Your task to perform on an android device: turn off notifications in google photos Image 0: 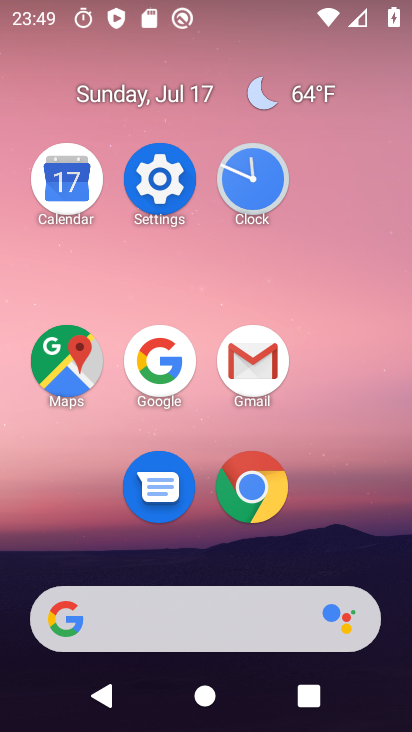
Step 0: drag from (316, 485) to (350, 70)
Your task to perform on an android device: turn off notifications in google photos Image 1: 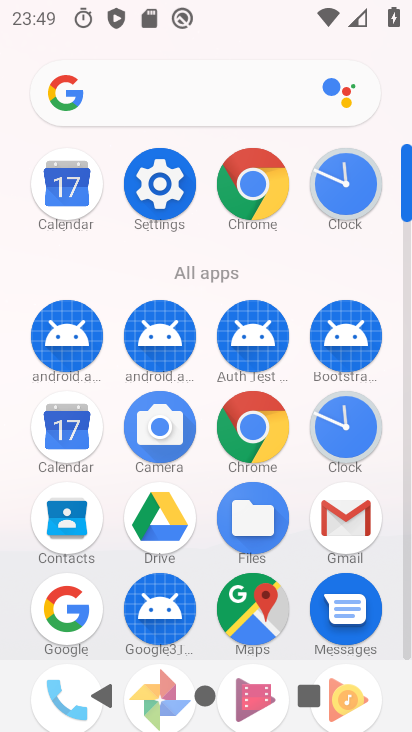
Step 1: drag from (202, 645) to (249, 257)
Your task to perform on an android device: turn off notifications in google photos Image 2: 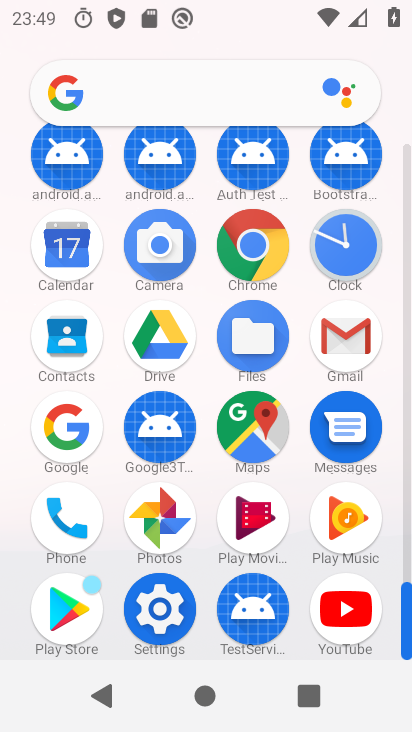
Step 2: drag from (162, 525) to (313, 223)
Your task to perform on an android device: turn off notifications in google photos Image 3: 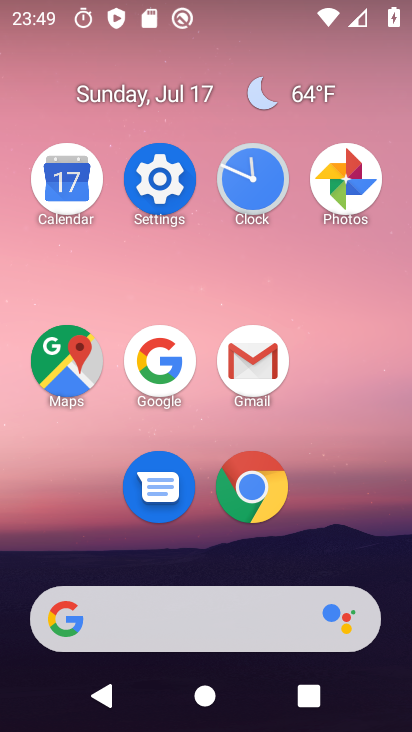
Step 3: click (325, 171)
Your task to perform on an android device: turn off notifications in google photos Image 4: 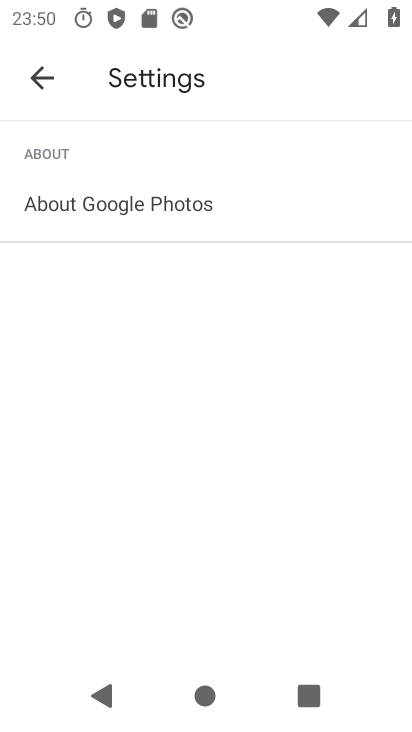
Step 4: click (59, 80)
Your task to perform on an android device: turn off notifications in google photos Image 5: 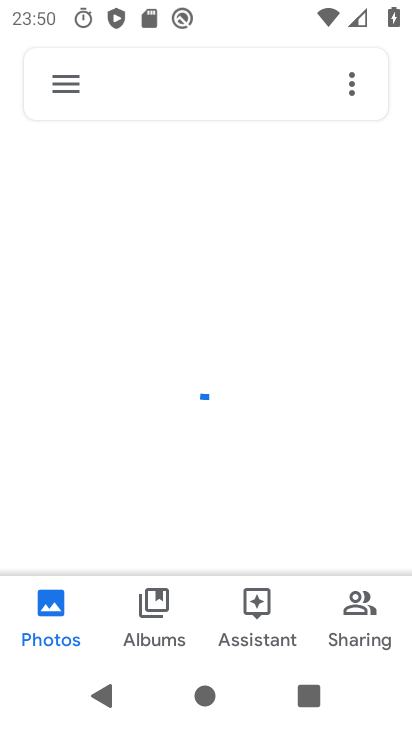
Step 5: click (66, 81)
Your task to perform on an android device: turn off notifications in google photos Image 6: 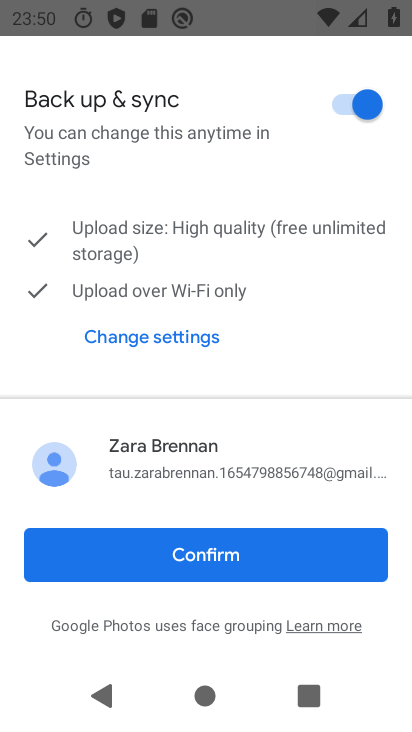
Step 6: click (165, 561)
Your task to perform on an android device: turn off notifications in google photos Image 7: 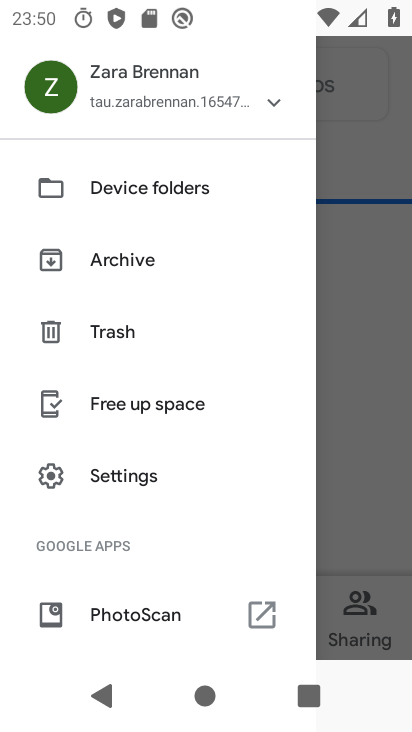
Step 7: click (164, 476)
Your task to perform on an android device: turn off notifications in google photos Image 8: 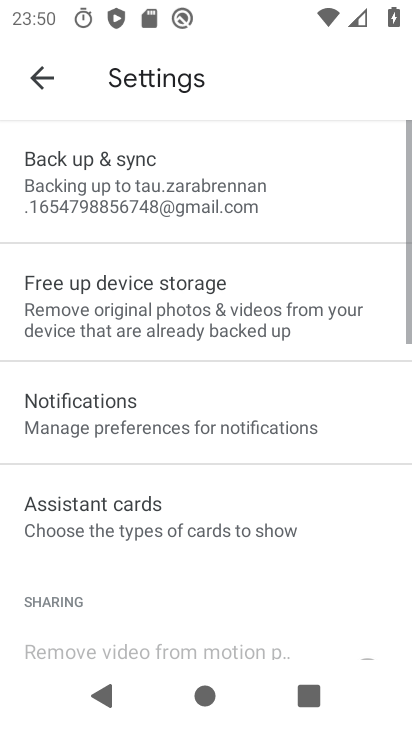
Step 8: drag from (164, 476) to (181, 132)
Your task to perform on an android device: turn off notifications in google photos Image 9: 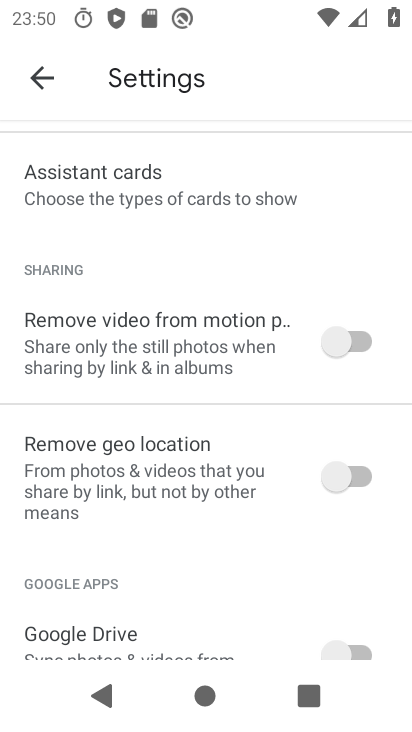
Step 9: drag from (179, 181) to (210, 522)
Your task to perform on an android device: turn off notifications in google photos Image 10: 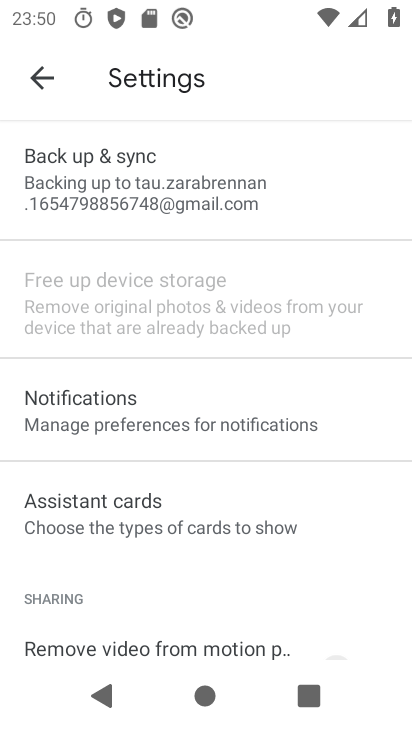
Step 10: click (138, 400)
Your task to perform on an android device: turn off notifications in google photos Image 11: 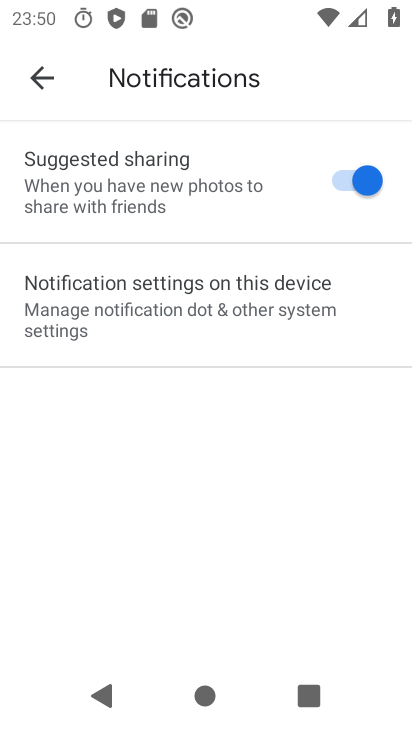
Step 11: click (165, 326)
Your task to perform on an android device: turn off notifications in google photos Image 12: 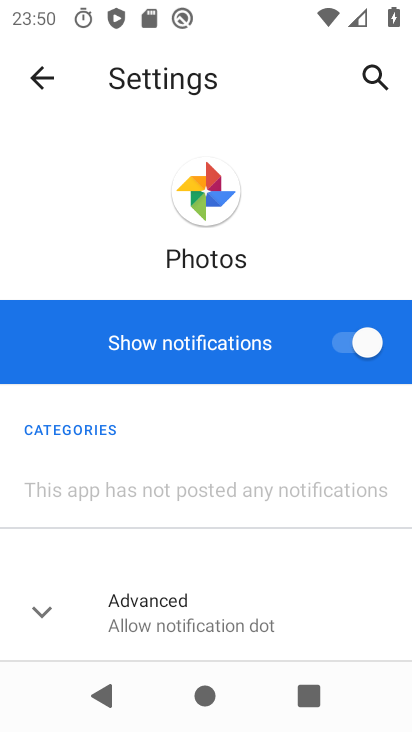
Step 12: click (339, 337)
Your task to perform on an android device: turn off notifications in google photos Image 13: 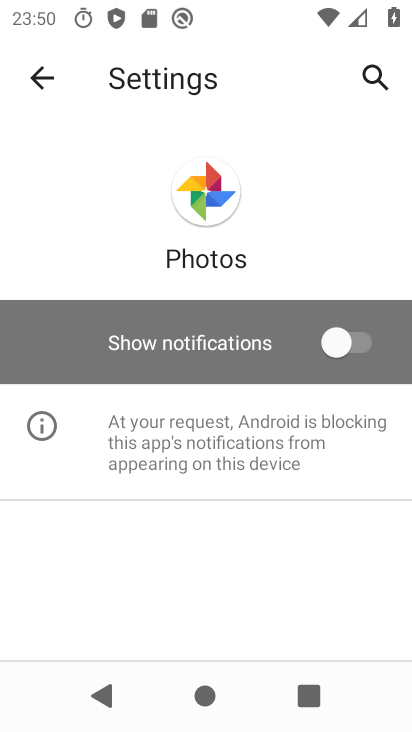
Step 13: task complete